Your task to perform on an android device: Show me the alarms in the clock app Image 0: 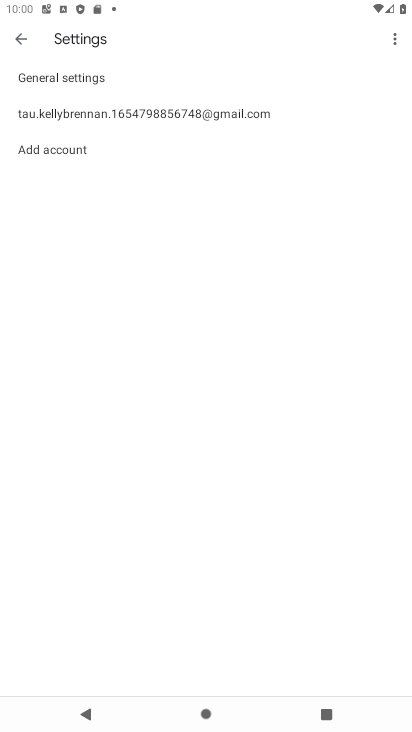
Step 0: press back button
Your task to perform on an android device: Show me the alarms in the clock app Image 1: 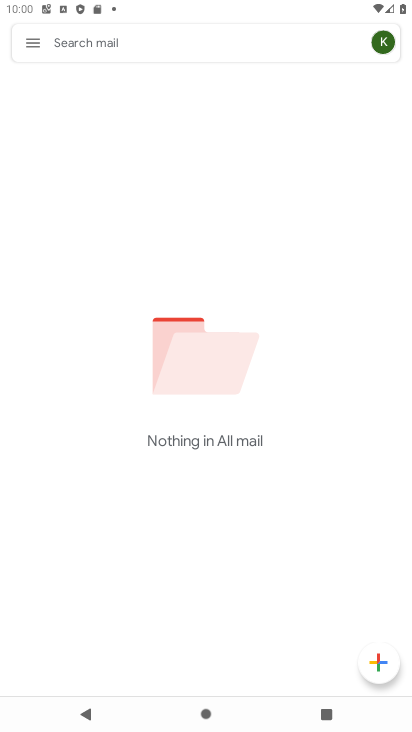
Step 1: press home button
Your task to perform on an android device: Show me the alarms in the clock app Image 2: 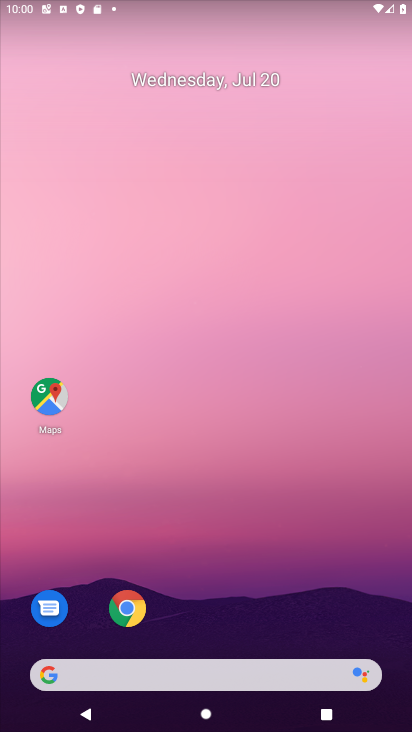
Step 2: drag from (250, 573) to (229, 2)
Your task to perform on an android device: Show me the alarms in the clock app Image 3: 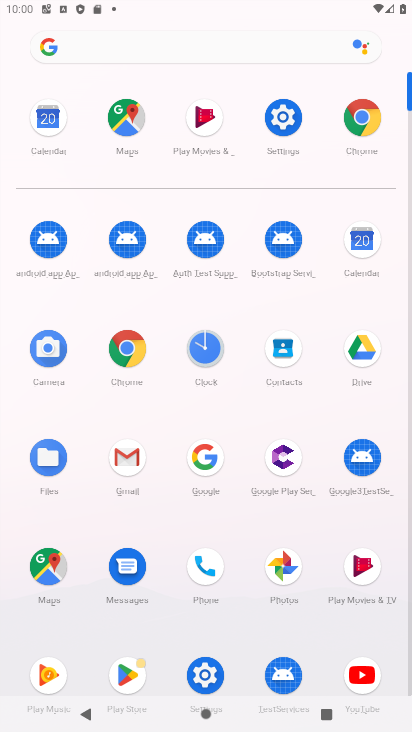
Step 3: click (206, 360)
Your task to perform on an android device: Show me the alarms in the clock app Image 4: 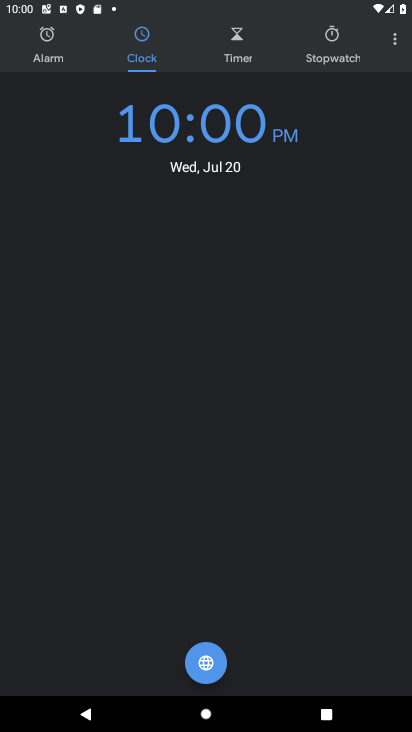
Step 4: click (60, 57)
Your task to perform on an android device: Show me the alarms in the clock app Image 5: 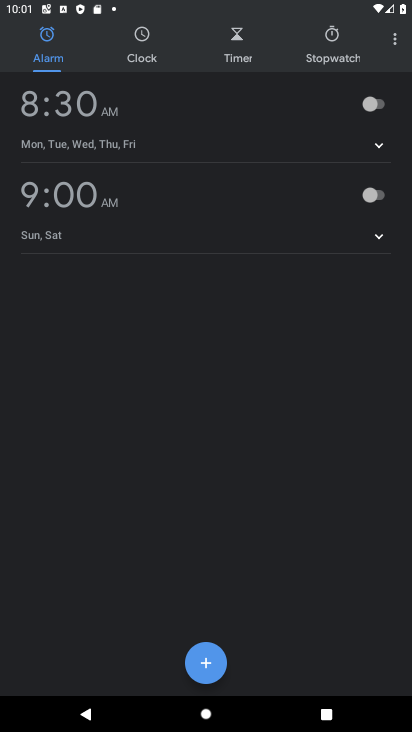
Step 5: task complete